Your task to perform on an android device: Open the phone app and click the voicemail tab. Image 0: 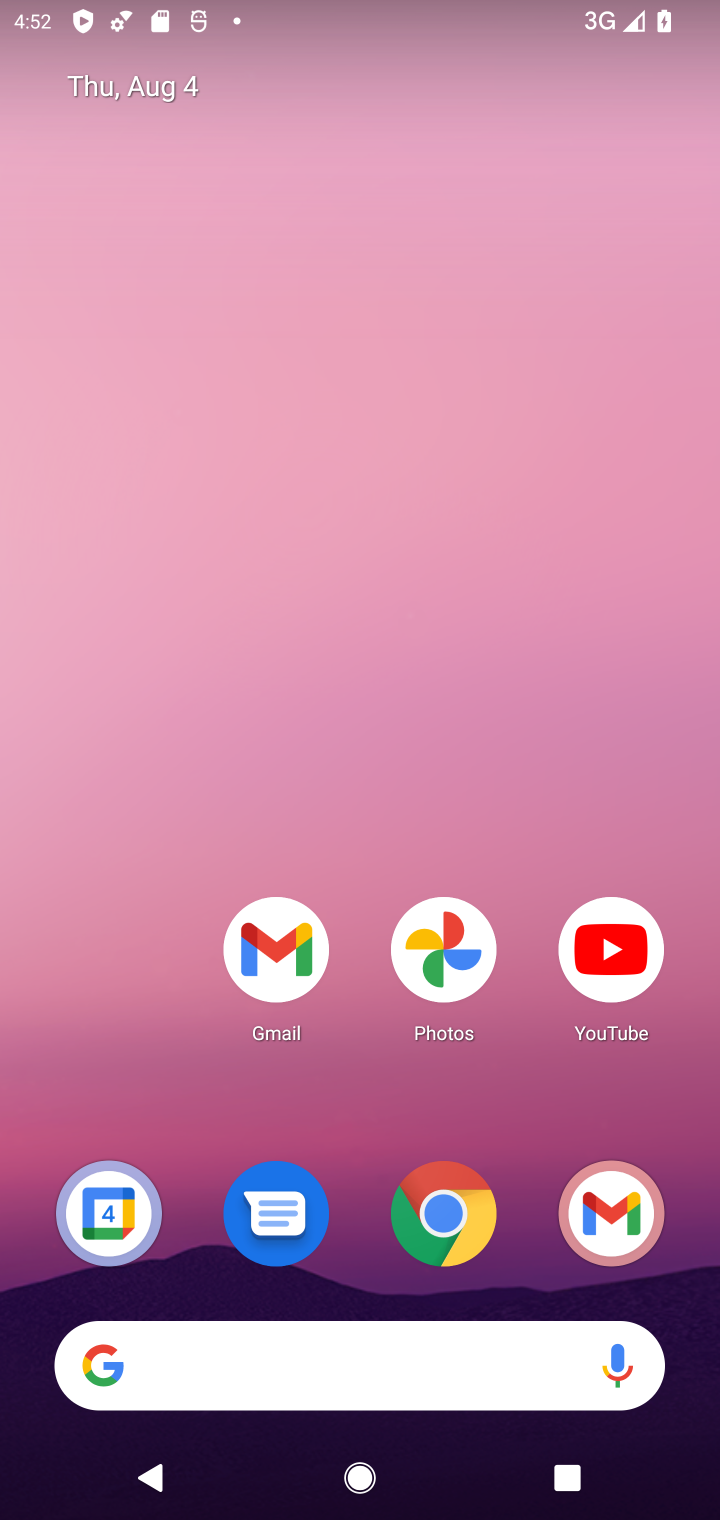
Step 0: press home button
Your task to perform on an android device: Open the phone app and click the voicemail tab. Image 1: 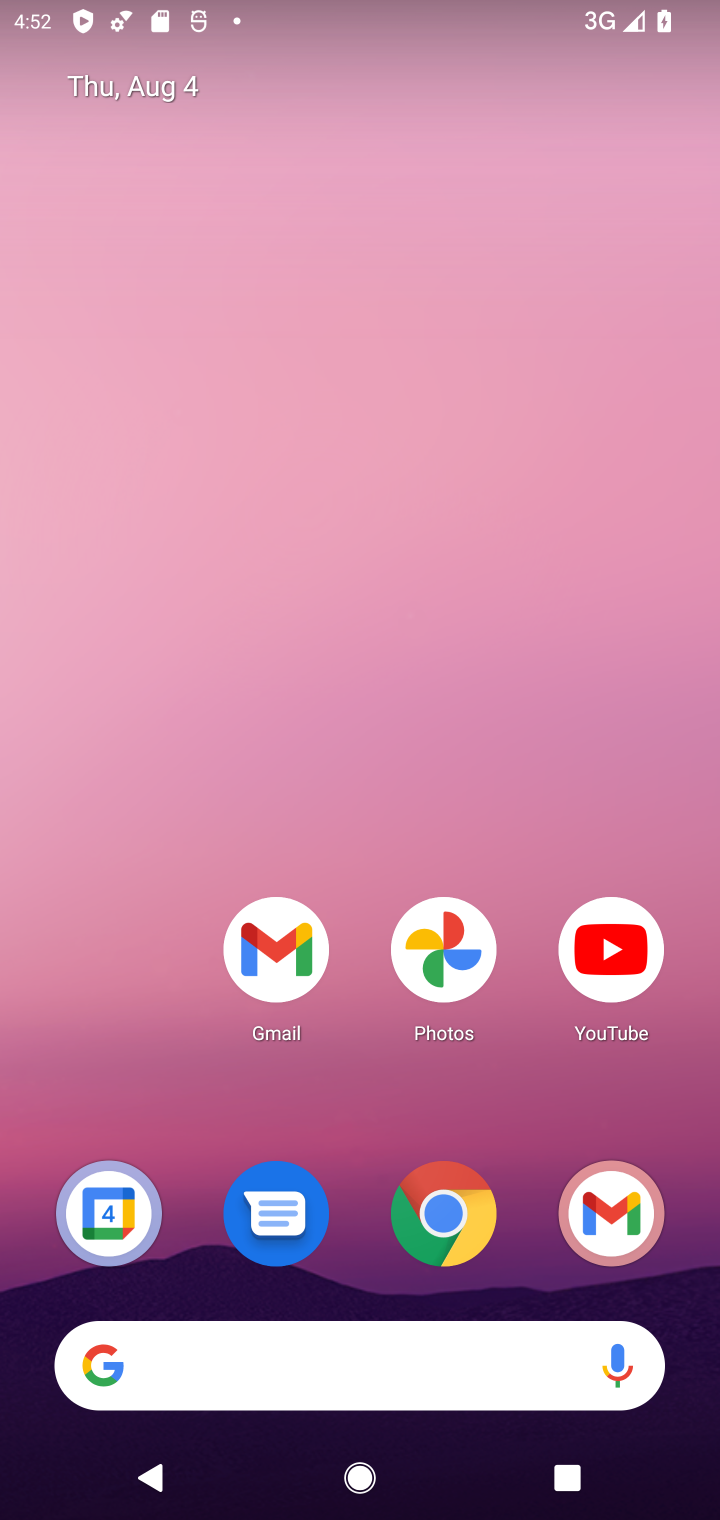
Step 1: drag from (176, 1105) to (109, 199)
Your task to perform on an android device: Open the phone app and click the voicemail tab. Image 2: 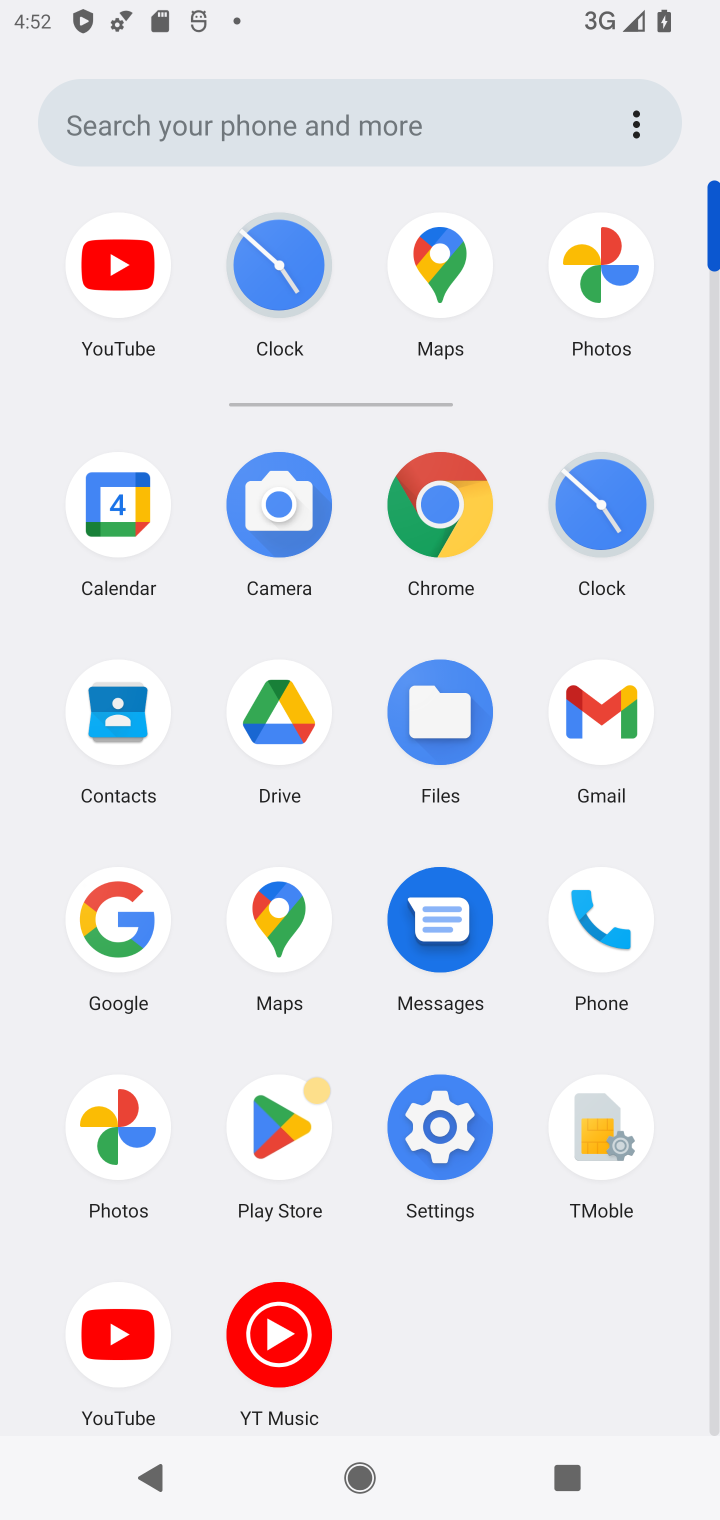
Step 2: click (619, 929)
Your task to perform on an android device: Open the phone app and click the voicemail tab. Image 3: 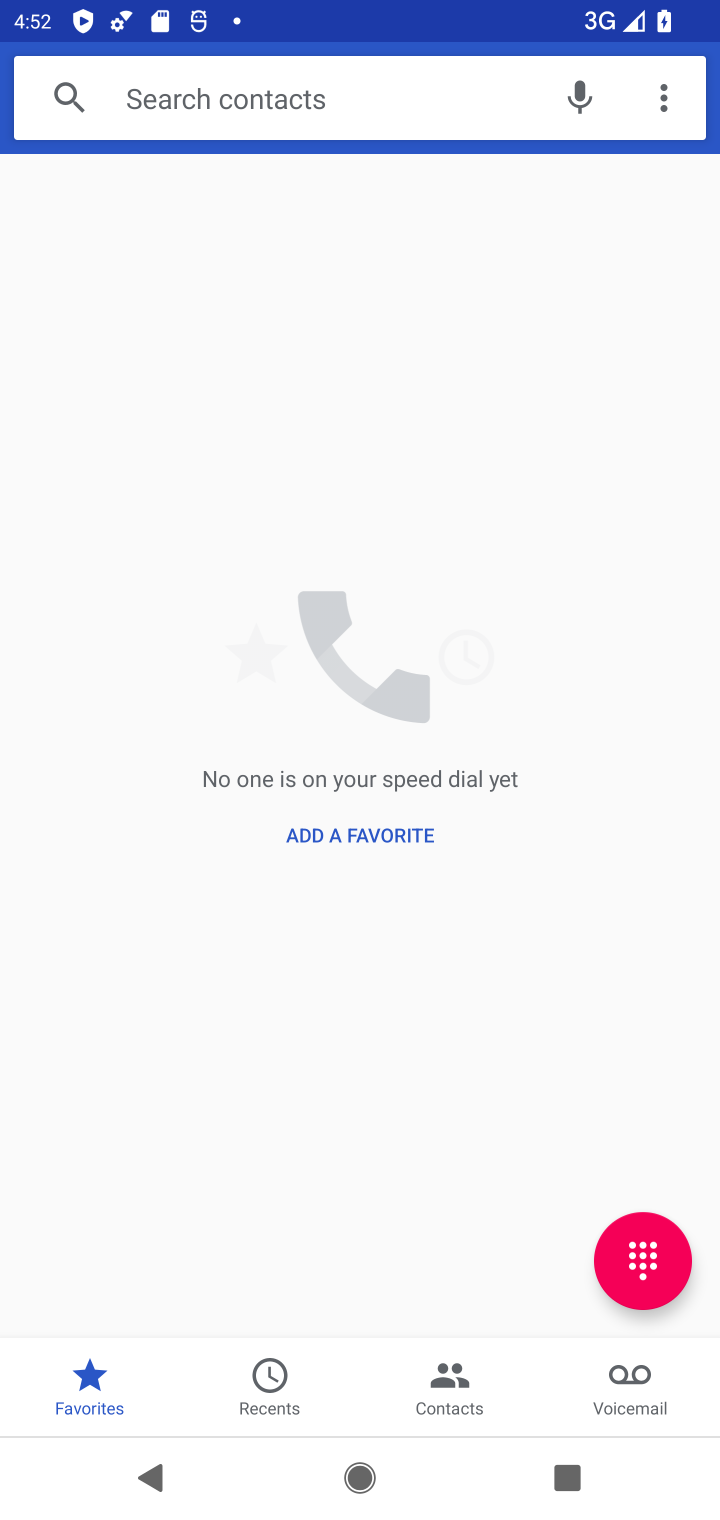
Step 3: click (655, 1391)
Your task to perform on an android device: Open the phone app and click the voicemail tab. Image 4: 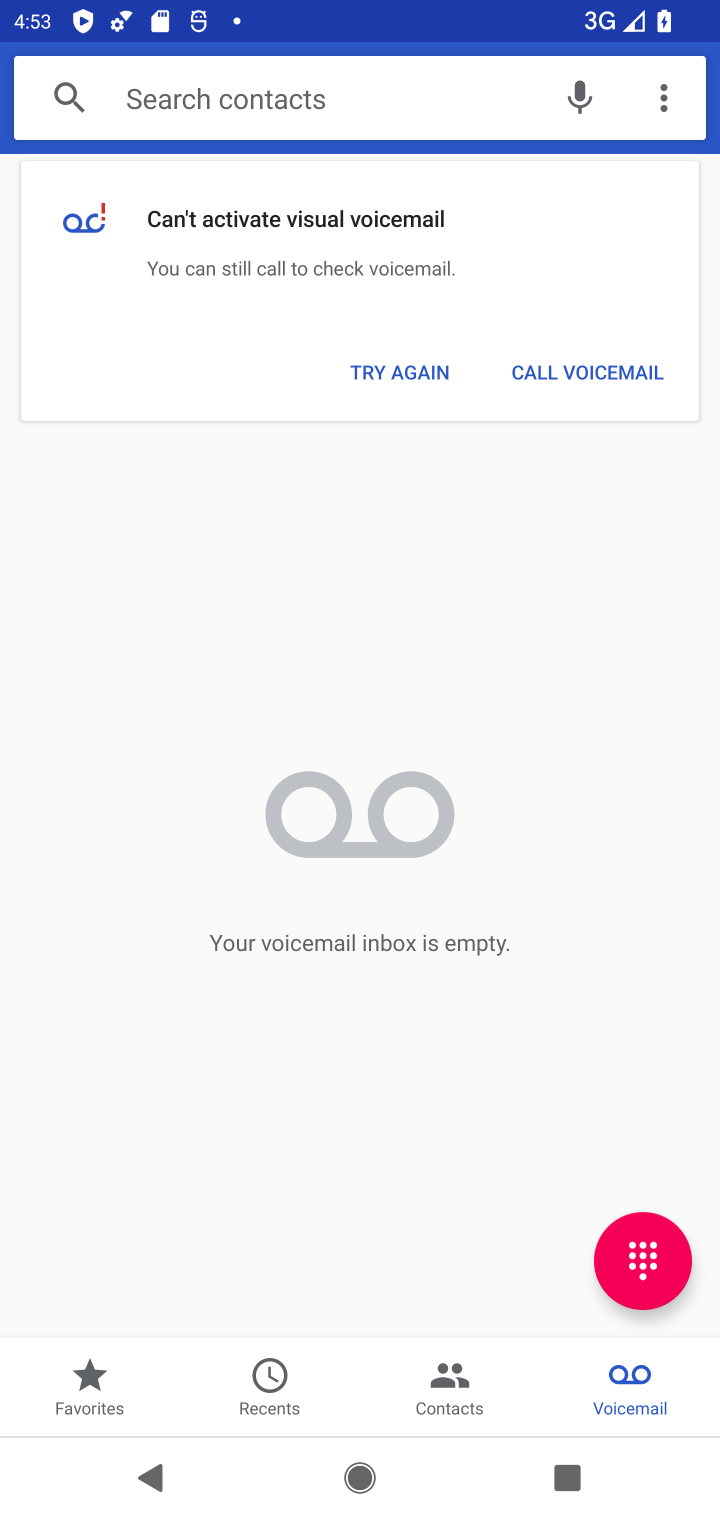
Step 4: task complete